Your task to perform on an android device: turn on location history Image 0: 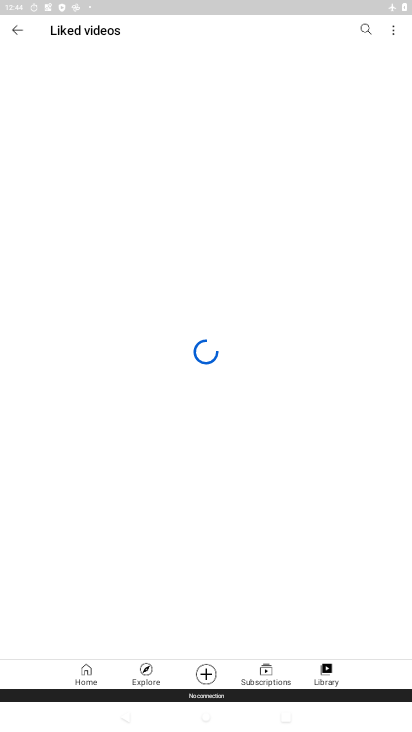
Step 0: press home button
Your task to perform on an android device: turn on location history Image 1: 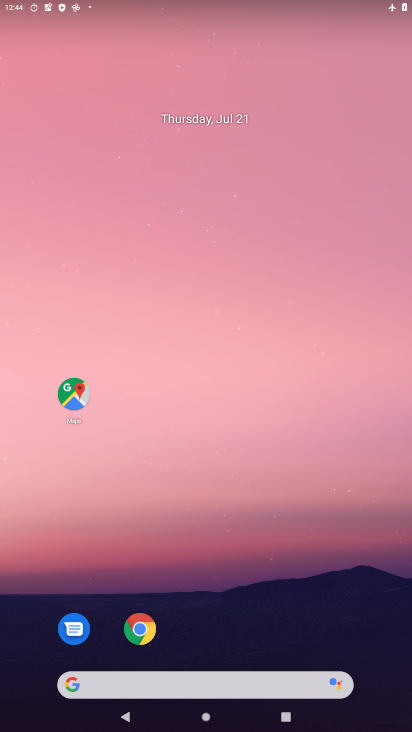
Step 1: drag from (261, 700) to (347, 124)
Your task to perform on an android device: turn on location history Image 2: 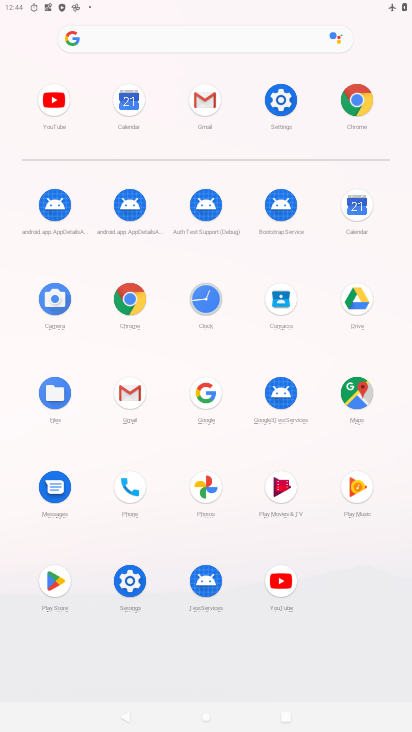
Step 2: click (280, 107)
Your task to perform on an android device: turn on location history Image 3: 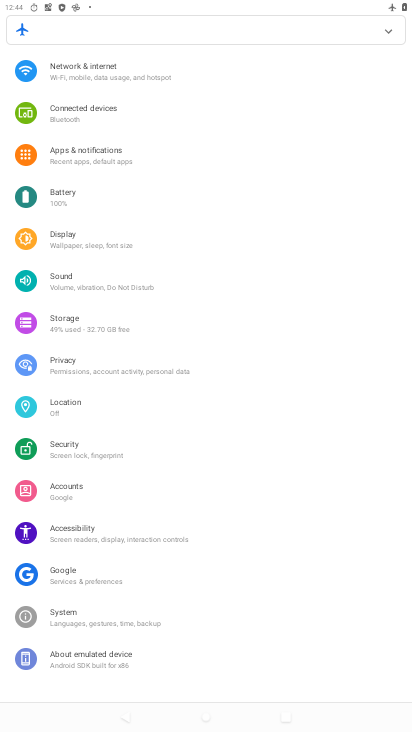
Step 3: click (110, 415)
Your task to perform on an android device: turn on location history Image 4: 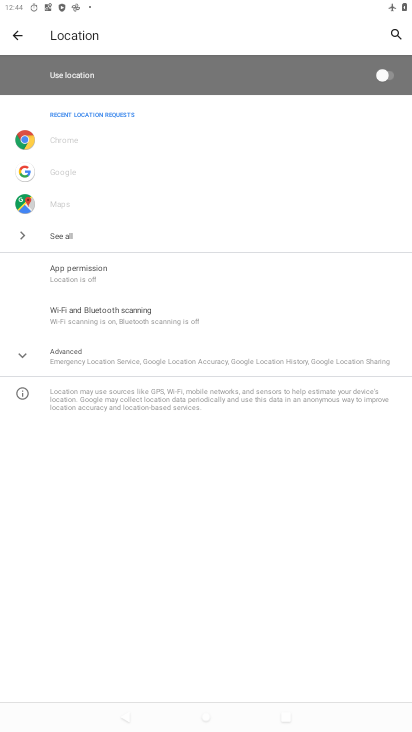
Step 4: click (149, 364)
Your task to perform on an android device: turn on location history Image 5: 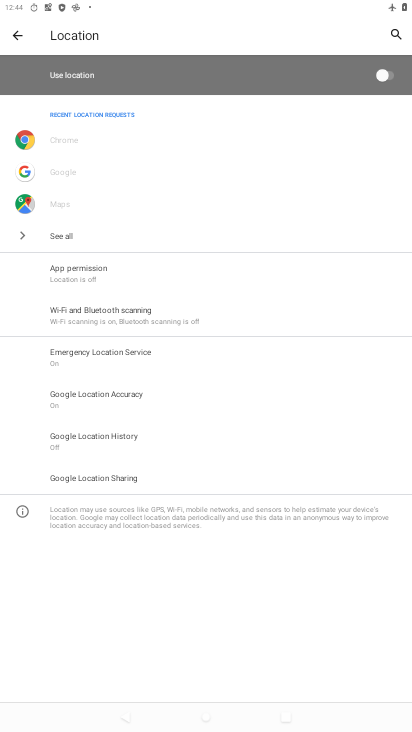
Step 5: click (140, 444)
Your task to perform on an android device: turn on location history Image 6: 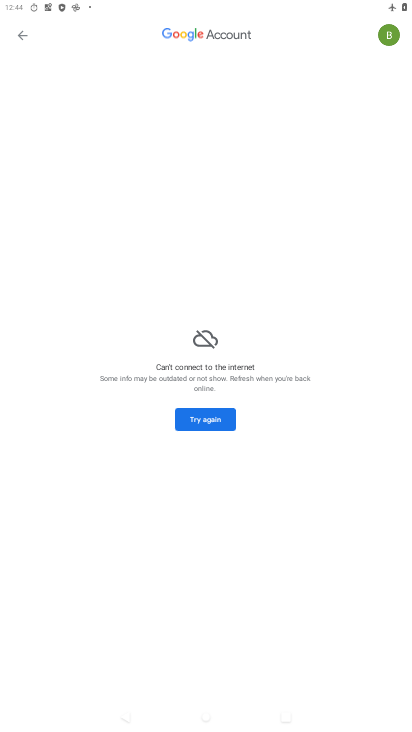
Step 6: task complete